Your task to perform on an android device: Do I have any events this weekend? Image 0: 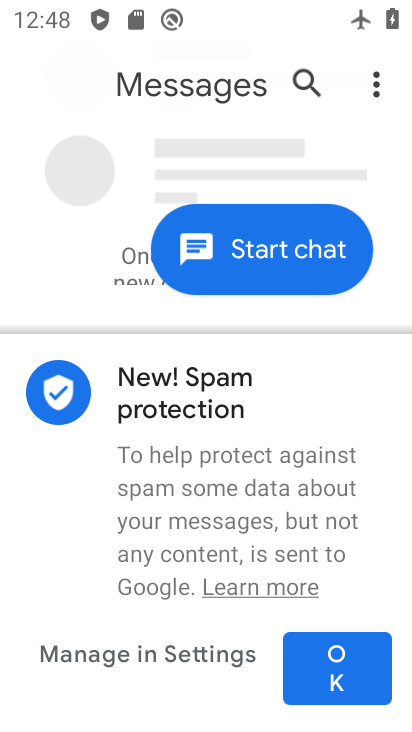
Step 0: press home button
Your task to perform on an android device: Do I have any events this weekend? Image 1: 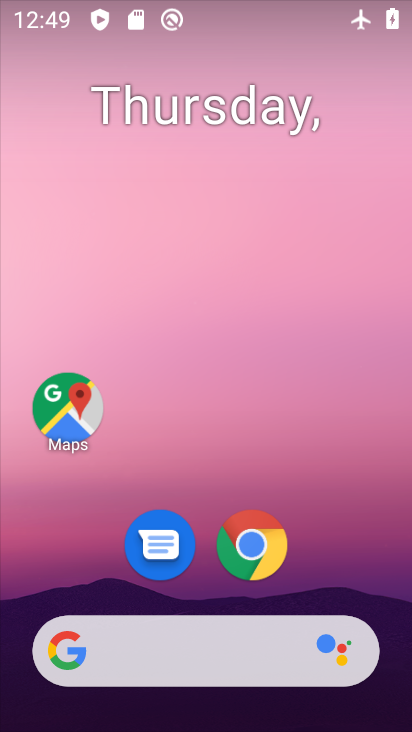
Step 1: drag from (241, 184) to (245, 98)
Your task to perform on an android device: Do I have any events this weekend? Image 2: 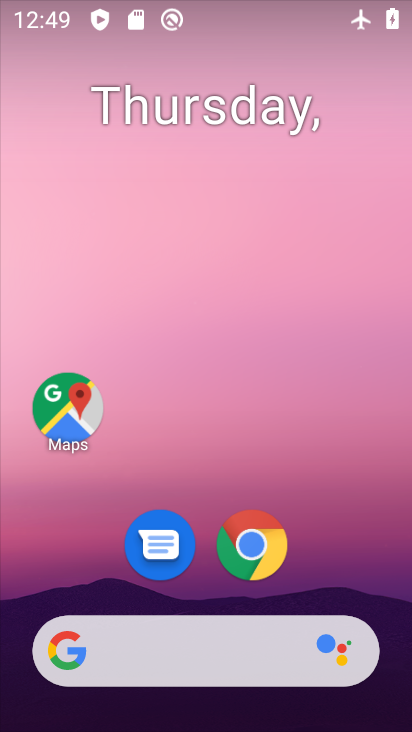
Step 2: drag from (88, 714) to (207, 81)
Your task to perform on an android device: Do I have any events this weekend? Image 3: 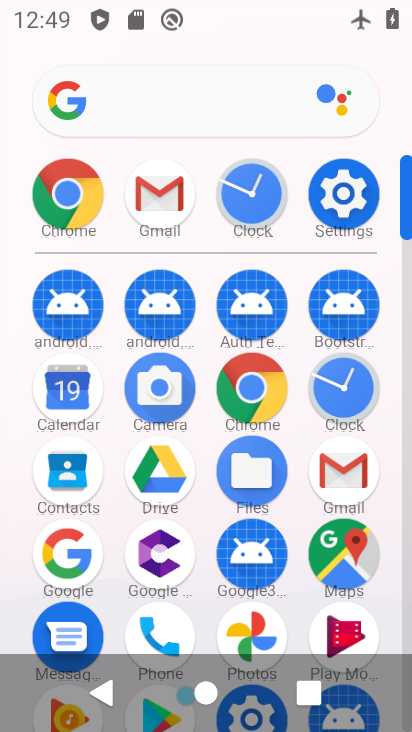
Step 3: click (70, 375)
Your task to perform on an android device: Do I have any events this weekend? Image 4: 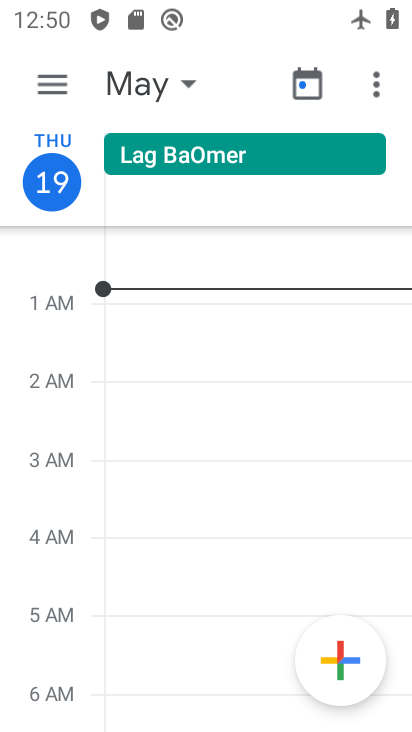
Step 4: click (130, 88)
Your task to perform on an android device: Do I have any events this weekend? Image 5: 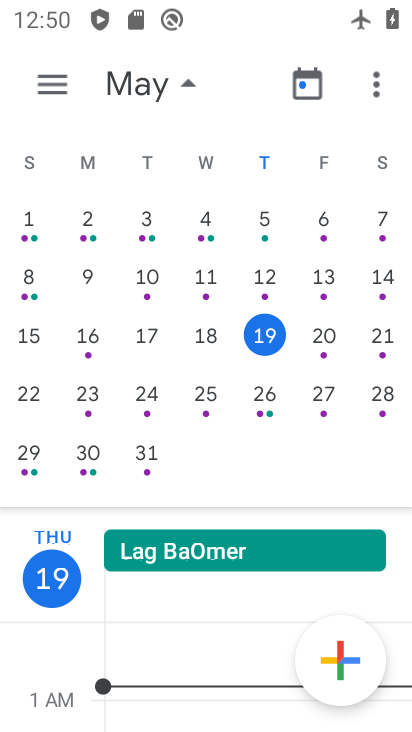
Step 5: click (378, 345)
Your task to perform on an android device: Do I have any events this weekend? Image 6: 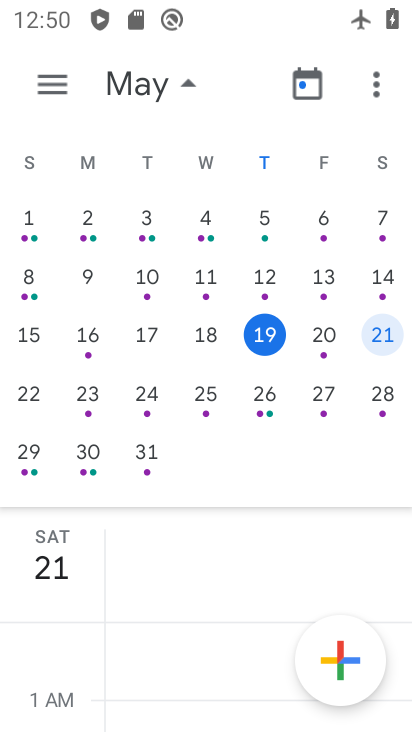
Step 6: task complete